Your task to perform on an android device: Open settings Image 0: 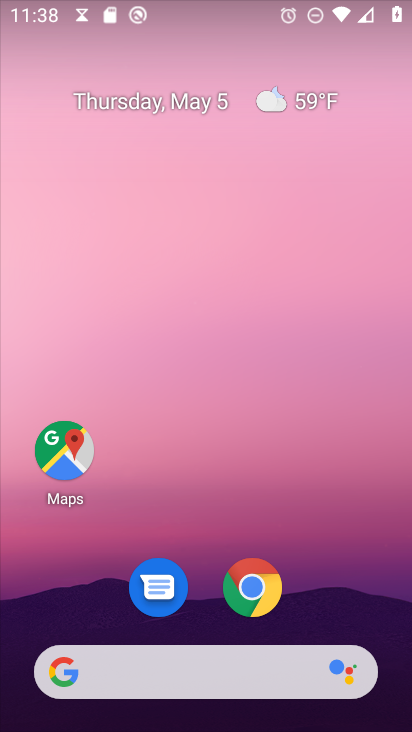
Step 0: drag from (348, 584) to (282, 23)
Your task to perform on an android device: Open settings Image 1: 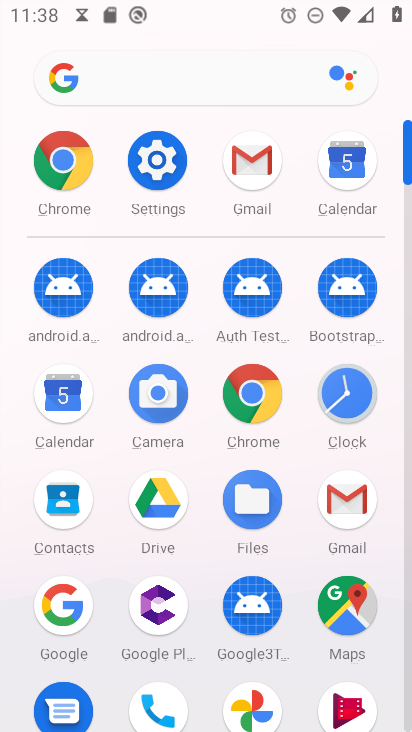
Step 1: click (151, 155)
Your task to perform on an android device: Open settings Image 2: 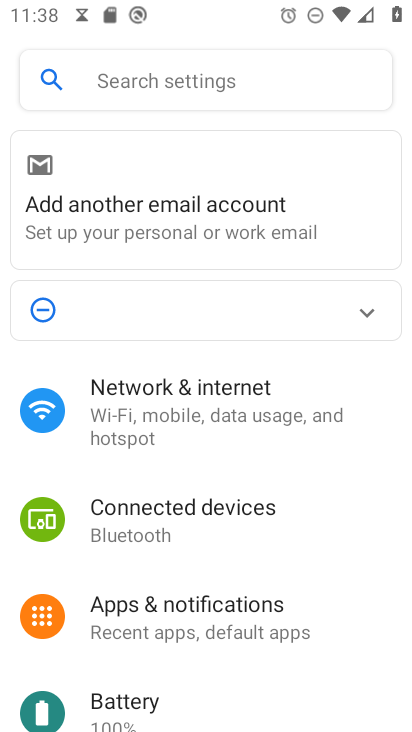
Step 2: task complete